Your task to perform on an android device: Go to Maps Image 0: 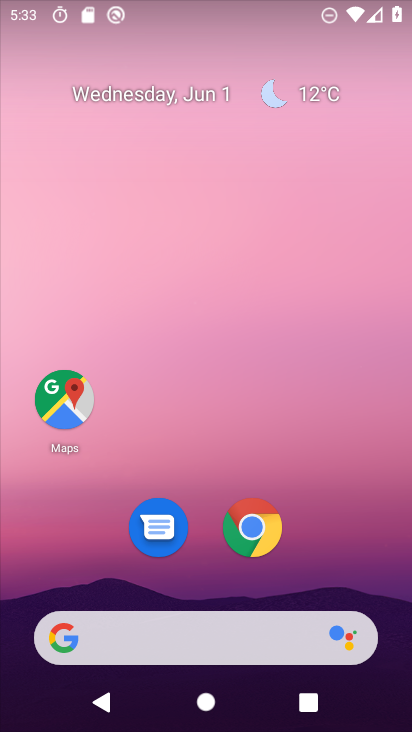
Step 0: click (67, 387)
Your task to perform on an android device: Go to Maps Image 1: 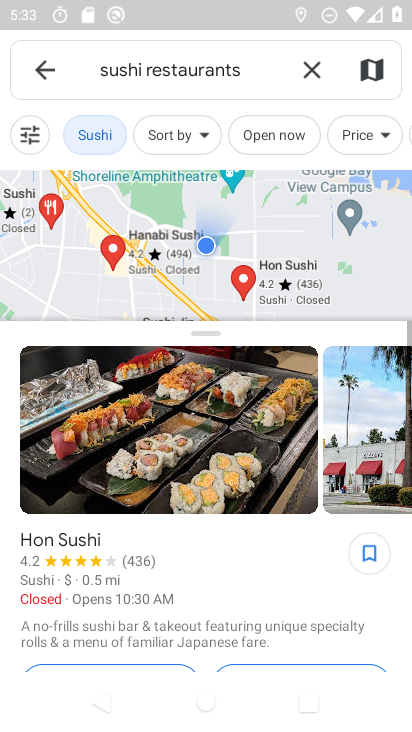
Step 1: task complete